Your task to perform on an android device: Open Google Chrome and click the shortcut for Amazon.com Image 0: 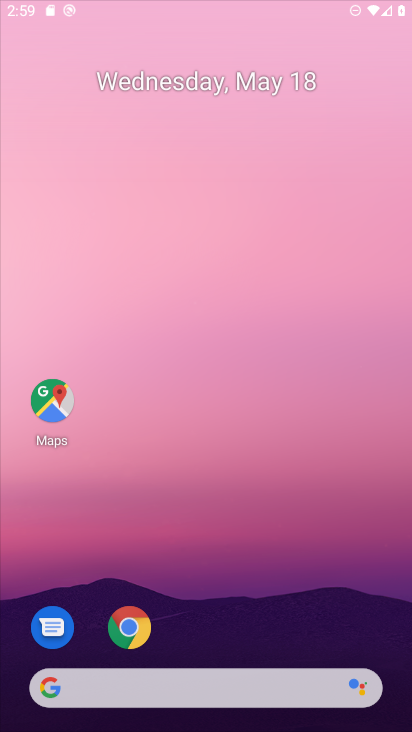
Step 0: click (277, 100)
Your task to perform on an android device: Open Google Chrome and click the shortcut for Amazon.com Image 1: 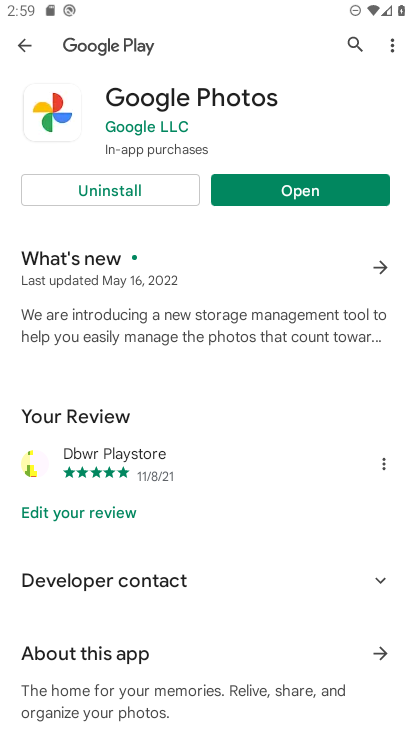
Step 1: press home button
Your task to perform on an android device: Open Google Chrome and click the shortcut for Amazon.com Image 2: 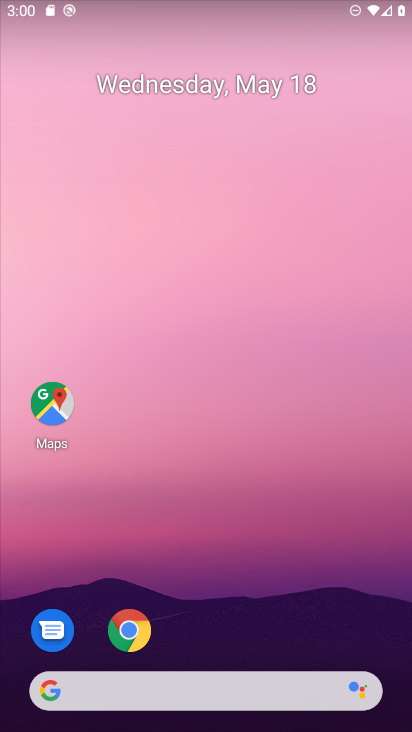
Step 2: click (122, 625)
Your task to perform on an android device: Open Google Chrome and click the shortcut for Amazon.com Image 3: 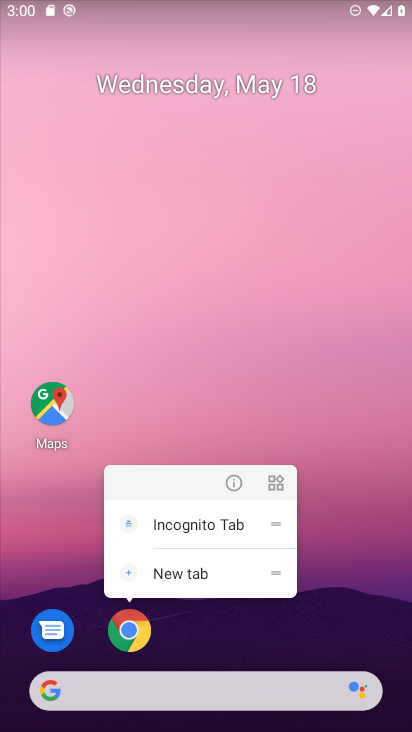
Step 3: click (131, 630)
Your task to perform on an android device: Open Google Chrome and click the shortcut for Amazon.com Image 4: 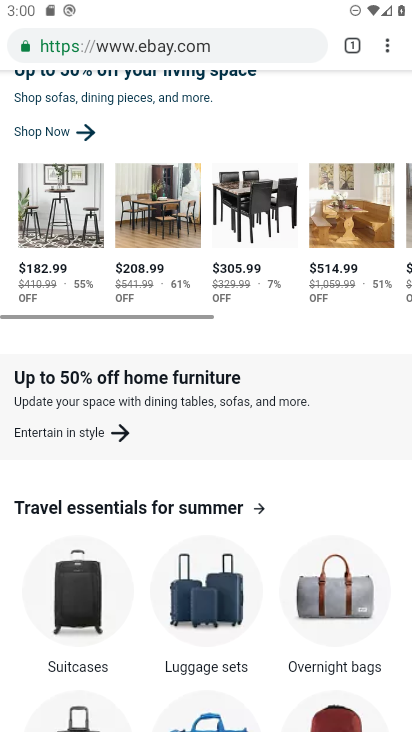
Step 4: click (347, 37)
Your task to perform on an android device: Open Google Chrome and click the shortcut for Amazon.com Image 5: 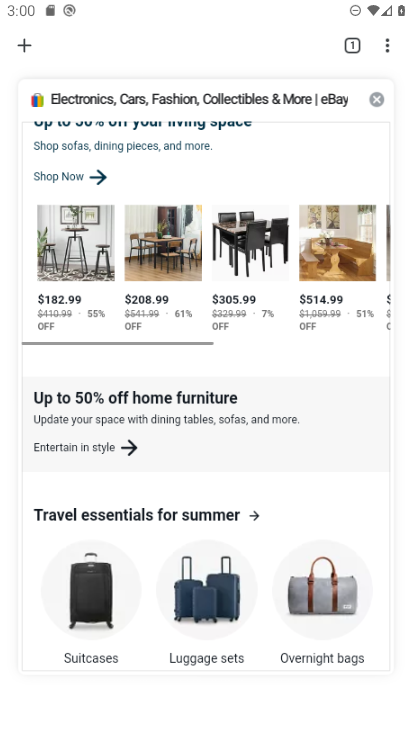
Step 5: click (374, 97)
Your task to perform on an android device: Open Google Chrome and click the shortcut for Amazon.com Image 6: 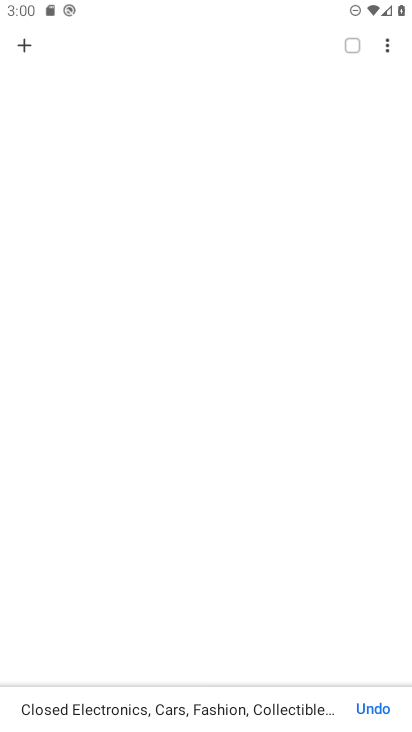
Step 6: click (26, 45)
Your task to perform on an android device: Open Google Chrome and click the shortcut for Amazon.com Image 7: 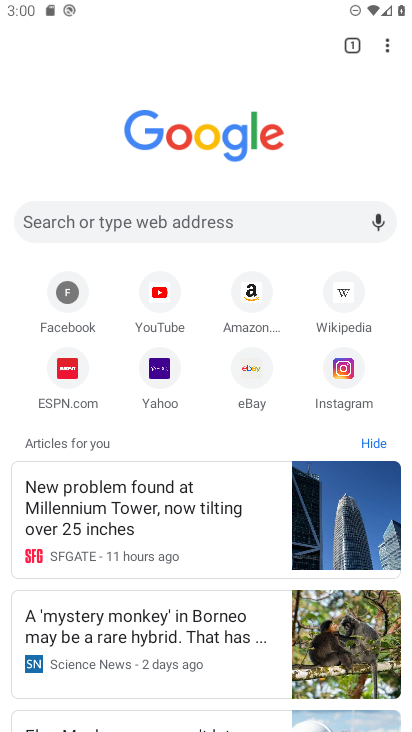
Step 7: click (256, 292)
Your task to perform on an android device: Open Google Chrome and click the shortcut for Amazon.com Image 8: 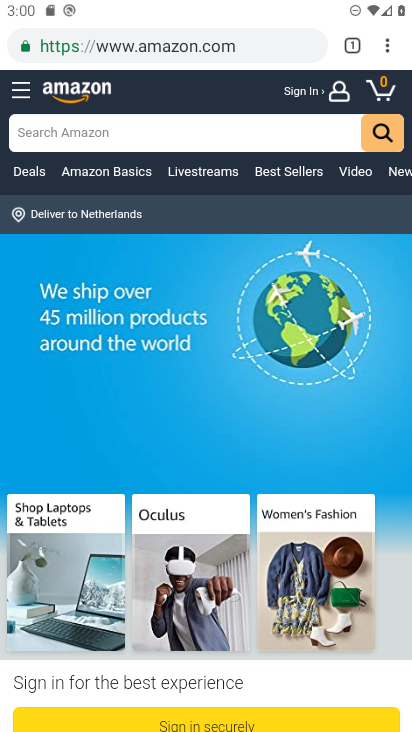
Step 8: drag from (212, 524) to (230, 336)
Your task to perform on an android device: Open Google Chrome and click the shortcut for Amazon.com Image 9: 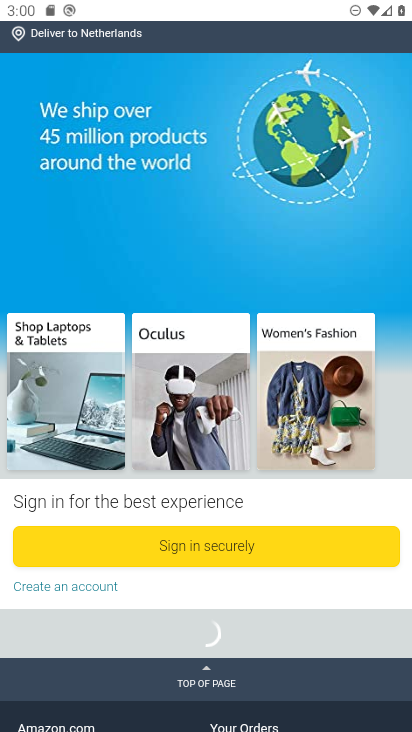
Step 9: drag from (210, 577) to (234, 384)
Your task to perform on an android device: Open Google Chrome and click the shortcut for Amazon.com Image 10: 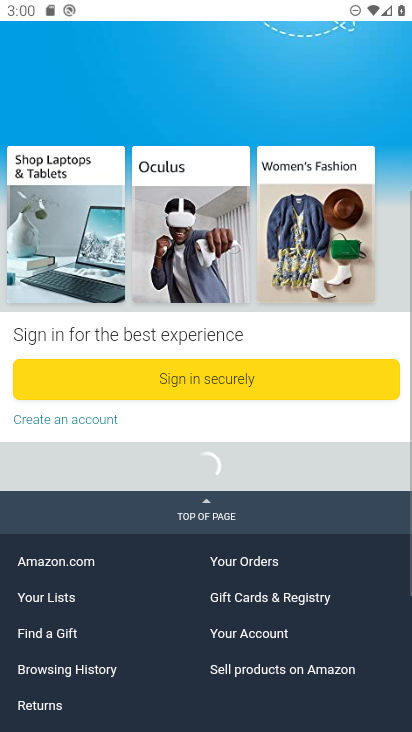
Step 10: click (235, 320)
Your task to perform on an android device: Open Google Chrome and click the shortcut for Amazon.com Image 11: 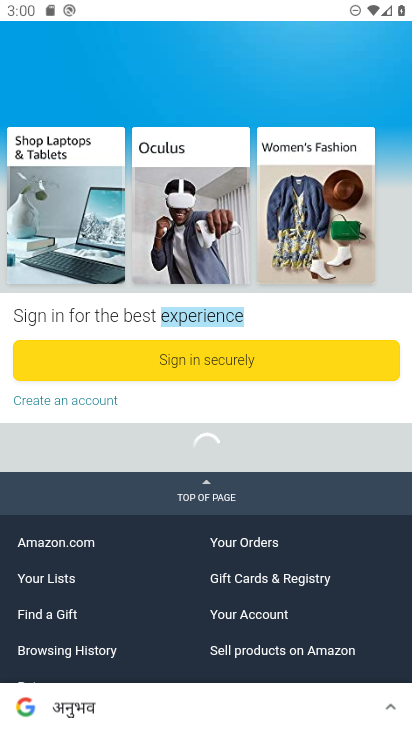
Step 11: task complete